Your task to perform on an android device: Is it going to rain tomorrow? Image 0: 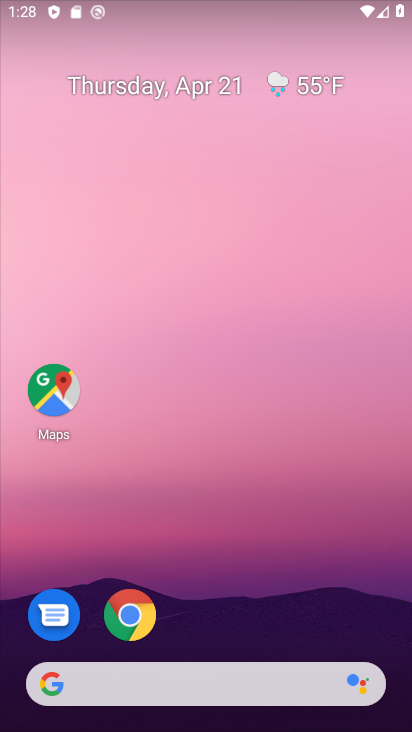
Step 0: drag from (200, 651) to (200, 248)
Your task to perform on an android device: Is it going to rain tomorrow? Image 1: 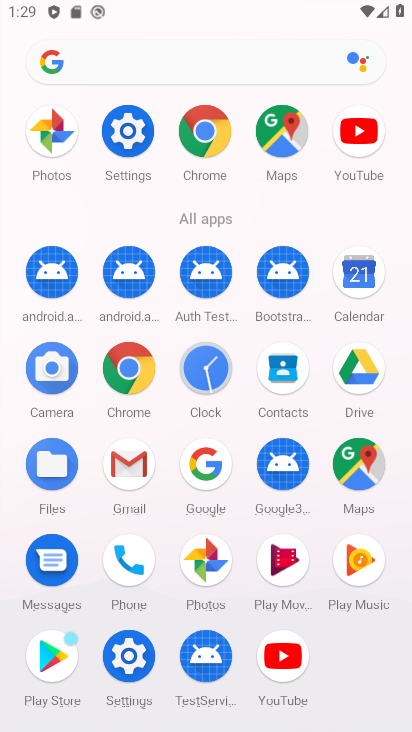
Step 1: click (205, 468)
Your task to perform on an android device: Is it going to rain tomorrow? Image 2: 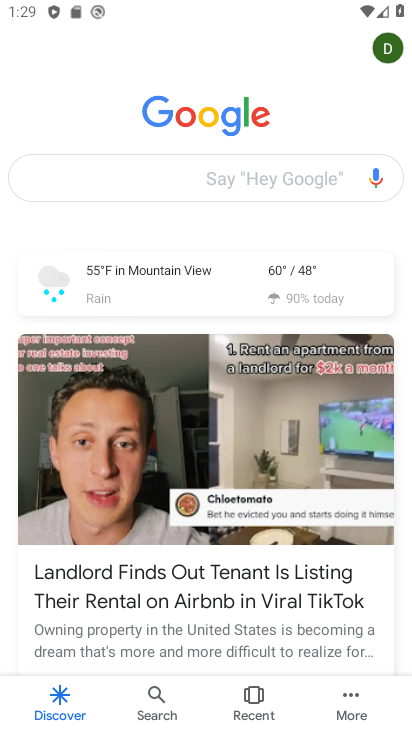
Step 2: click (114, 179)
Your task to perform on an android device: Is it going to rain tomorrow? Image 3: 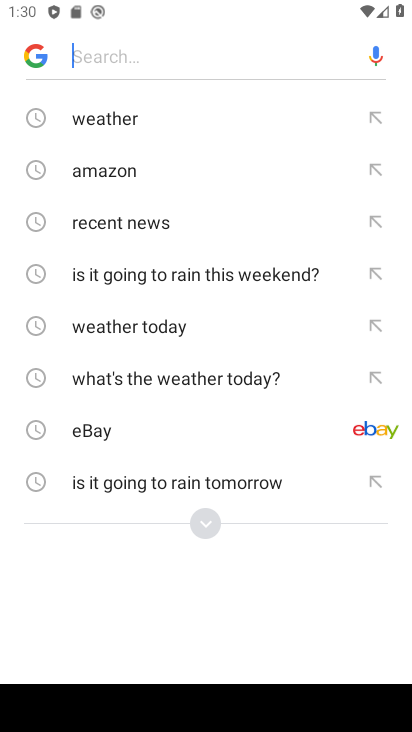
Step 3: click (180, 480)
Your task to perform on an android device: Is it going to rain tomorrow? Image 4: 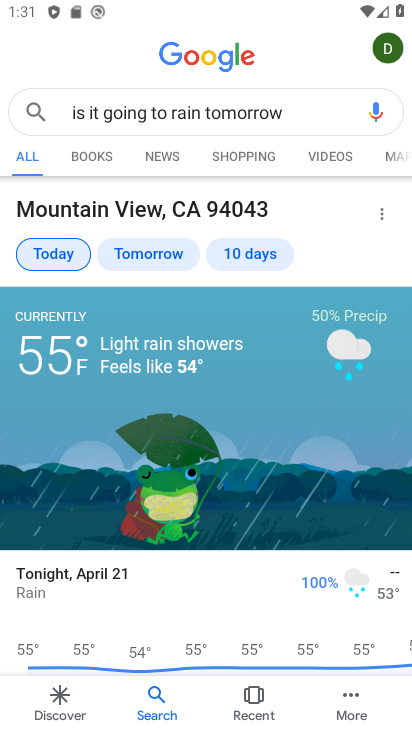
Step 4: click (144, 260)
Your task to perform on an android device: Is it going to rain tomorrow? Image 5: 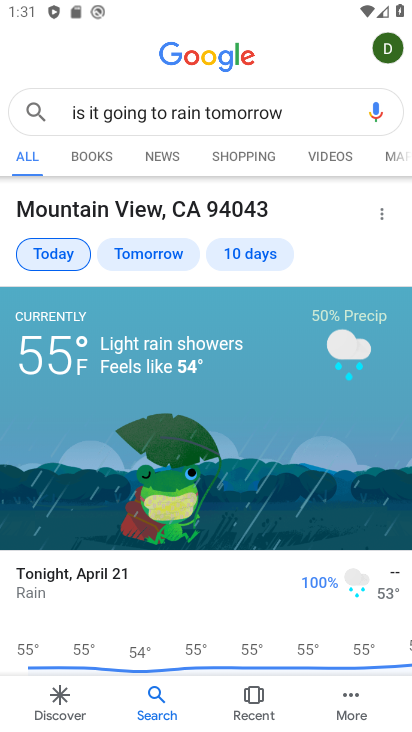
Step 5: click (143, 251)
Your task to perform on an android device: Is it going to rain tomorrow? Image 6: 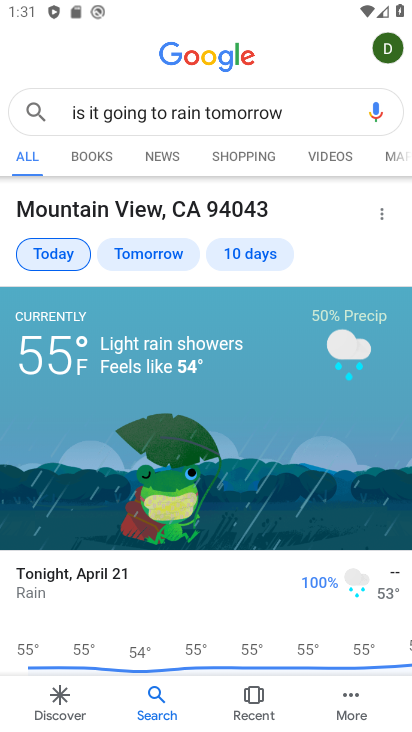
Step 6: click (163, 247)
Your task to perform on an android device: Is it going to rain tomorrow? Image 7: 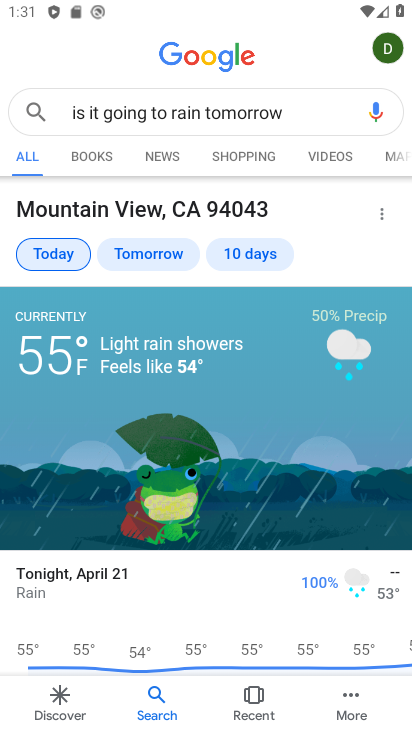
Step 7: click (162, 246)
Your task to perform on an android device: Is it going to rain tomorrow? Image 8: 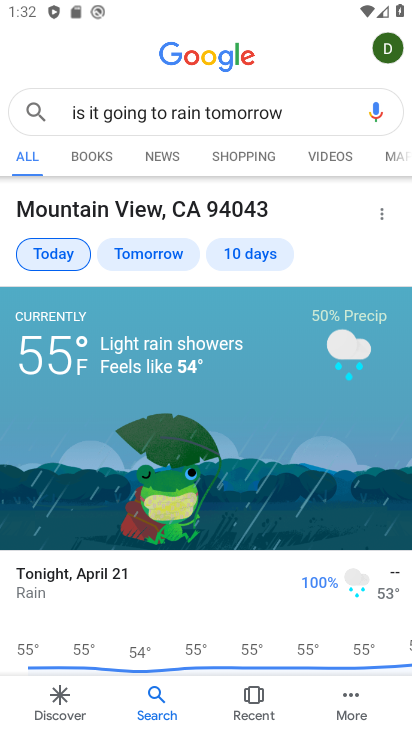
Step 8: task complete